Your task to perform on an android device: What's on my calendar tomorrow? Image 0: 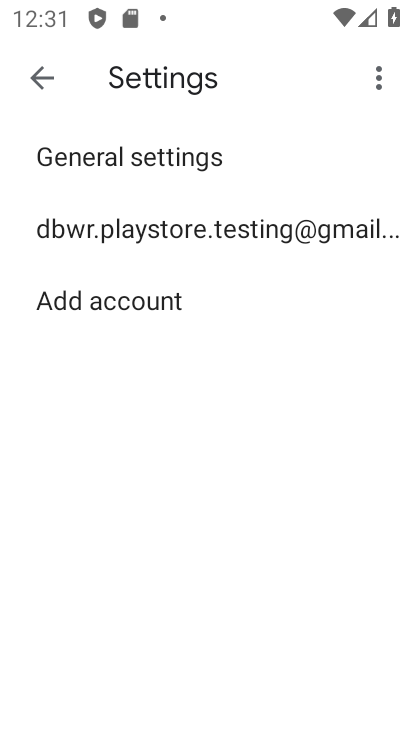
Step 0: press home button
Your task to perform on an android device: What's on my calendar tomorrow? Image 1: 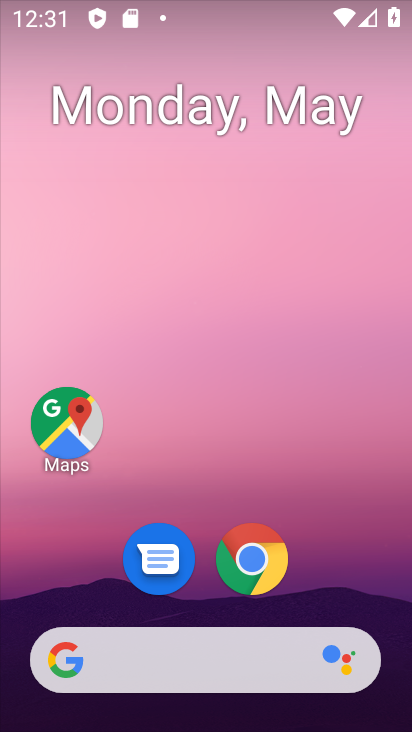
Step 1: drag from (267, 716) to (287, 153)
Your task to perform on an android device: What's on my calendar tomorrow? Image 2: 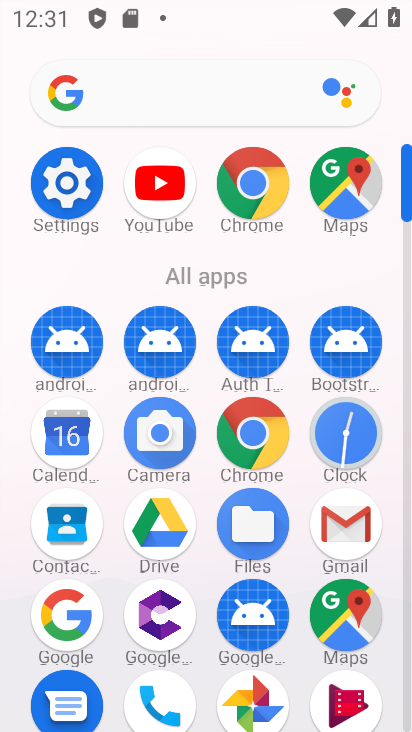
Step 2: click (59, 441)
Your task to perform on an android device: What's on my calendar tomorrow? Image 3: 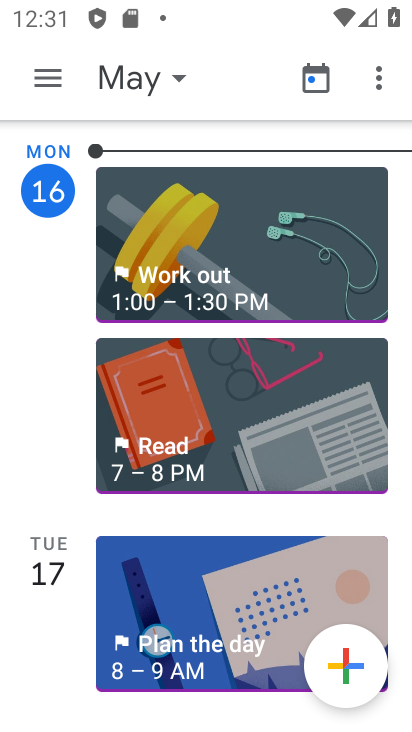
Step 3: task complete